Your task to perform on an android device: When is my next meeting? Image 0: 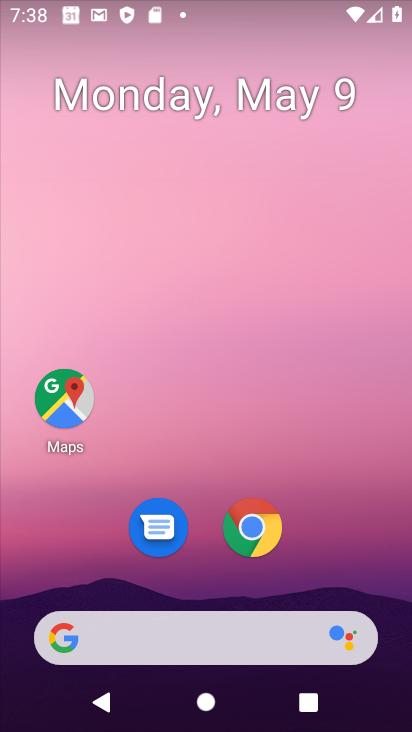
Step 0: drag from (195, 608) to (210, 88)
Your task to perform on an android device: When is my next meeting? Image 1: 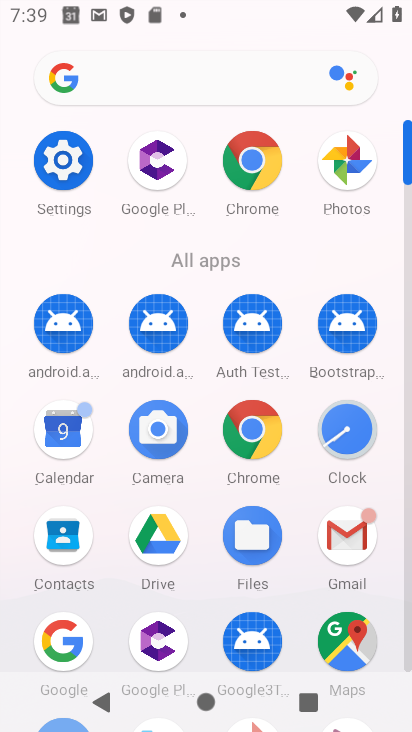
Step 1: click (77, 446)
Your task to perform on an android device: When is my next meeting? Image 2: 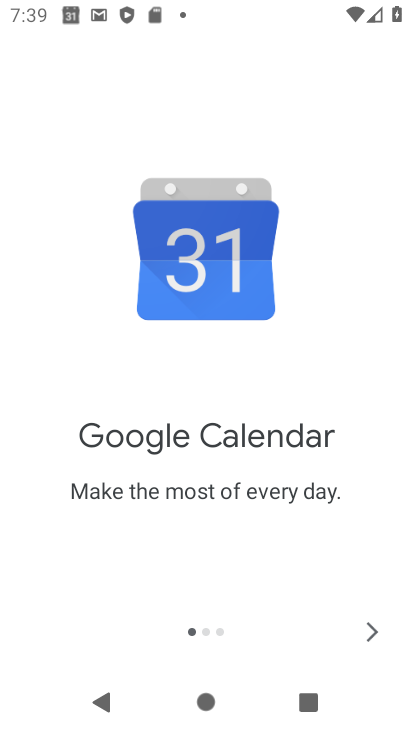
Step 2: click (365, 630)
Your task to perform on an android device: When is my next meeting? Image 3: 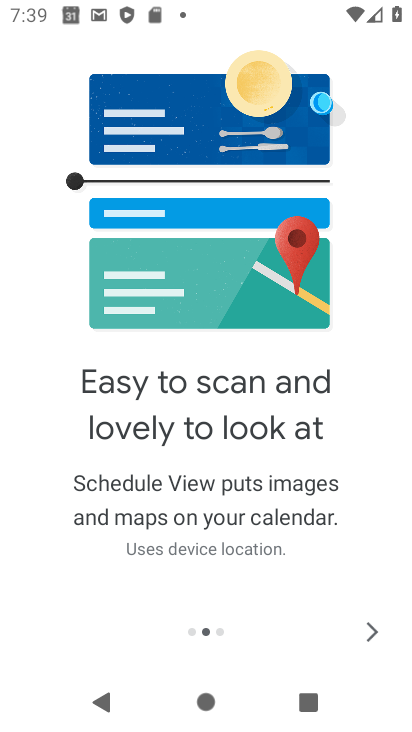
Step 3: click (367, 644)
Your task to perform on an android device: When is my next meeting? Image 4: 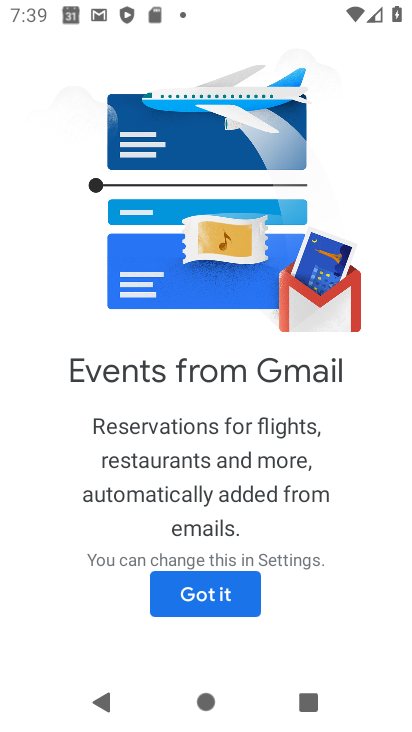
Step 4: click (250, 602)
Your task to perform on an android device: When is my next meeting? Image 5: 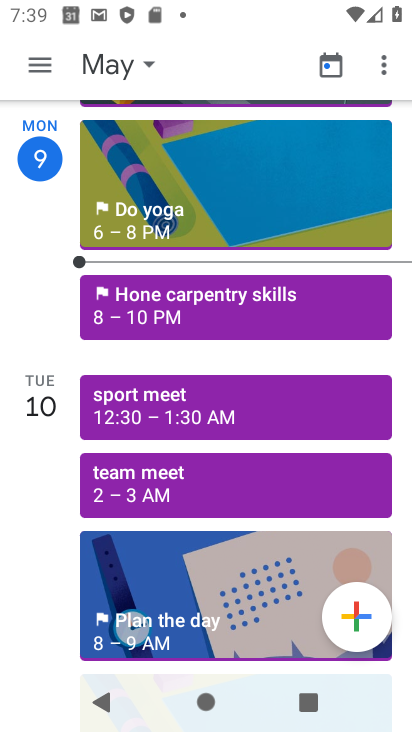
Step 5: task complete